Your task to perform on an android device: open app "Pinterest" (install if not already installed) Image 0: 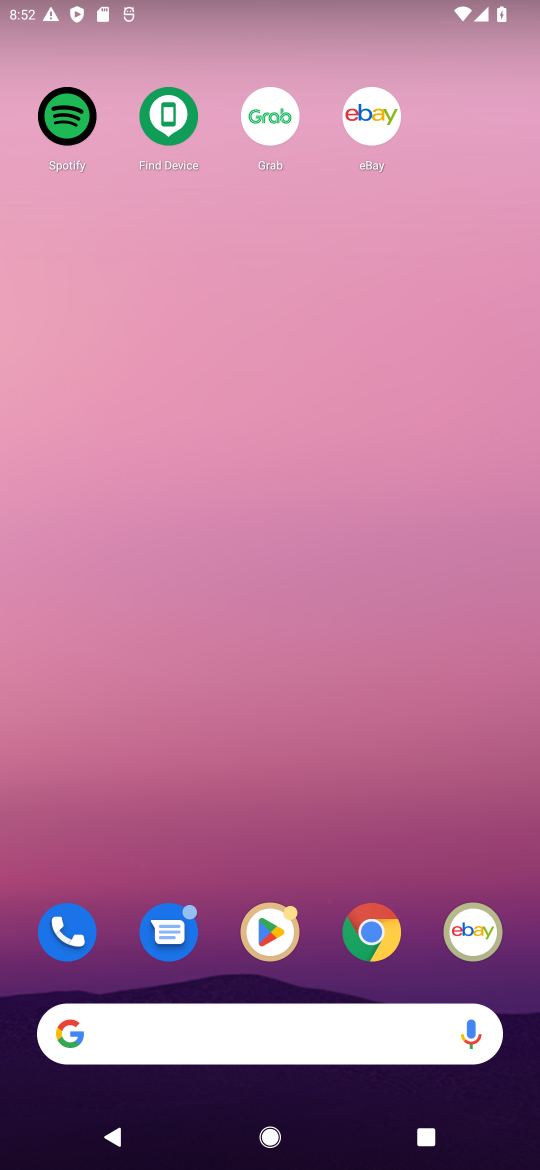
Step 0: click (262, 937)
Your task to perform on an android device: open app "Pinterest" (install if not already installed) Image 1: 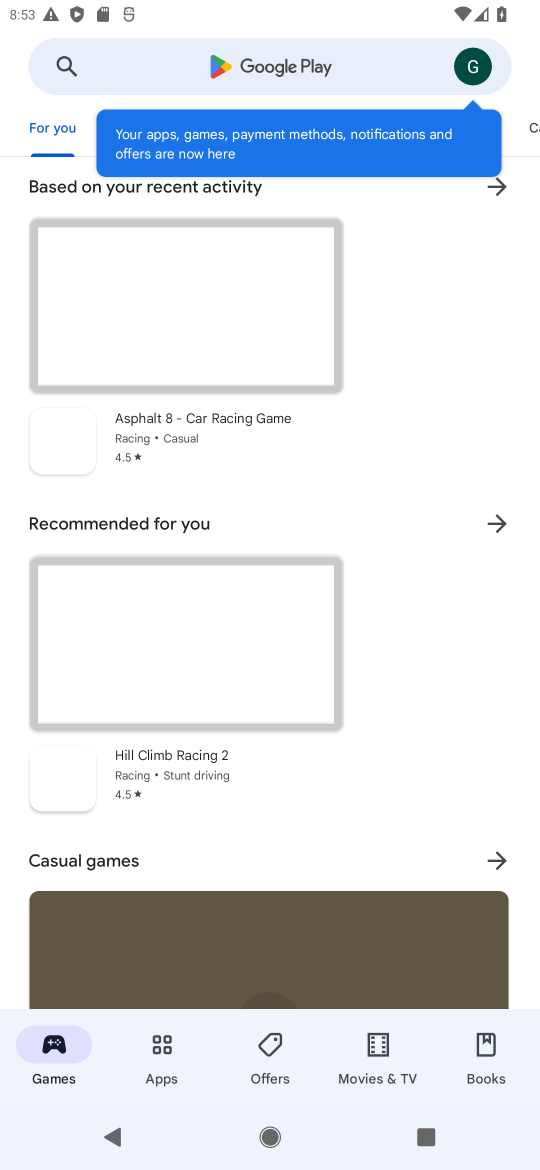
Step 1: click (308, 87)
Your task to perform on an android device: open app "Pinterest" (install if not already installed) Image 2: 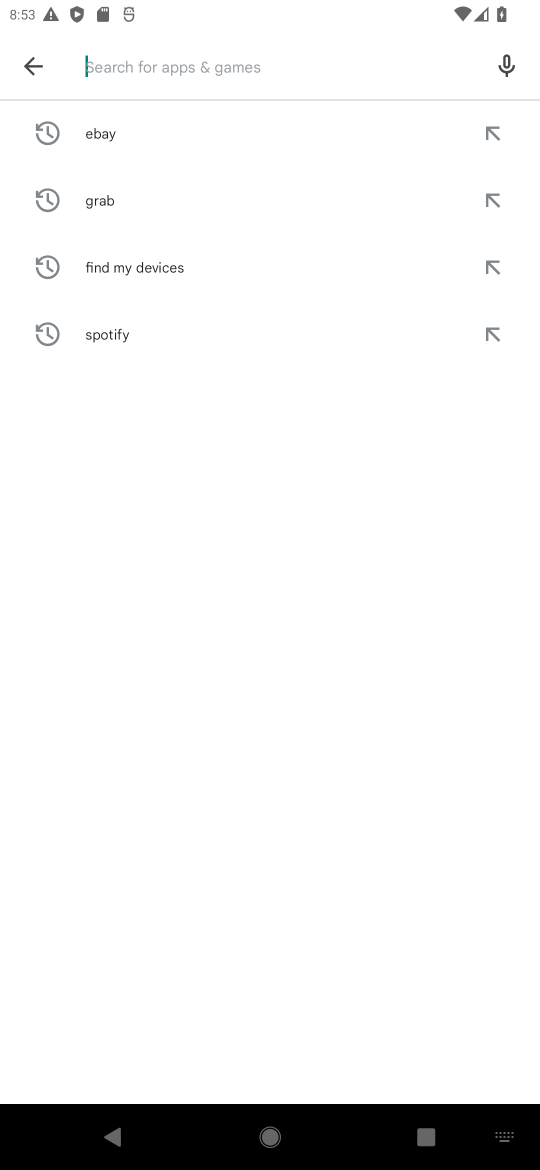
Step 2: type "pinterrest"
Your task to perform on an android device: open app "Pinterest" (install if not already installed) Image 3: 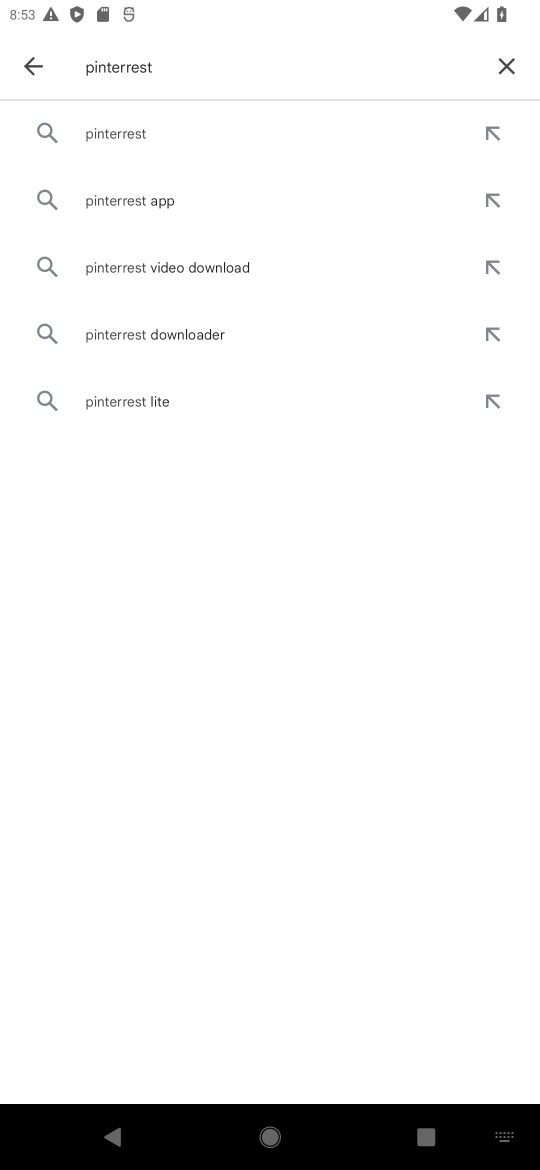
Step 3: click (280, 120)
Your task to perform on an android device: open app "Pinterest" (install if not already installed) Image 4: 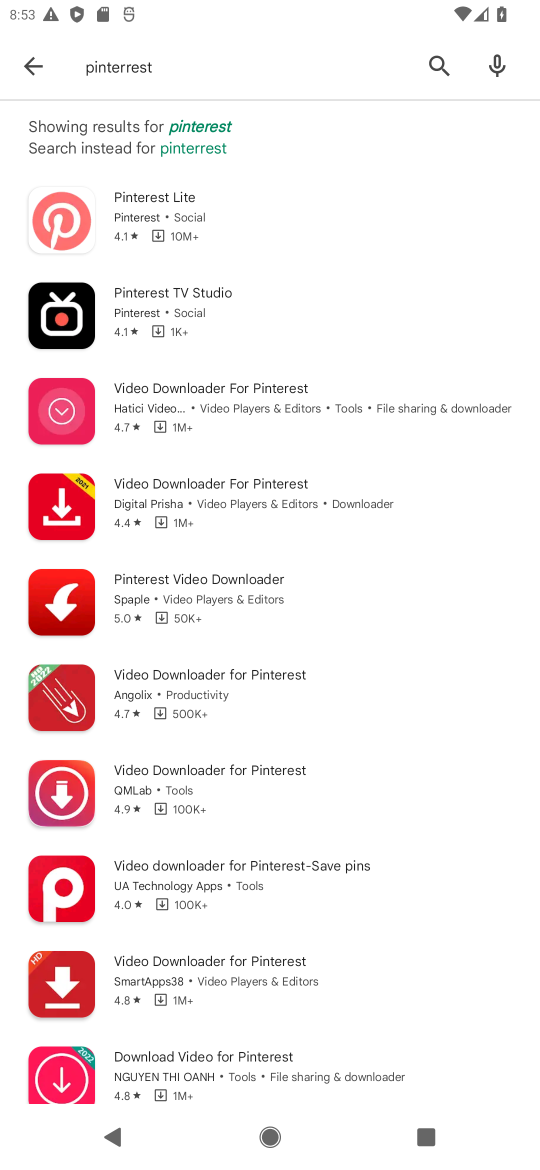
Step 4: click (249, 196)
Your task to perform on an android device: open app "Pinterest" (install if not already installed) Image 5: 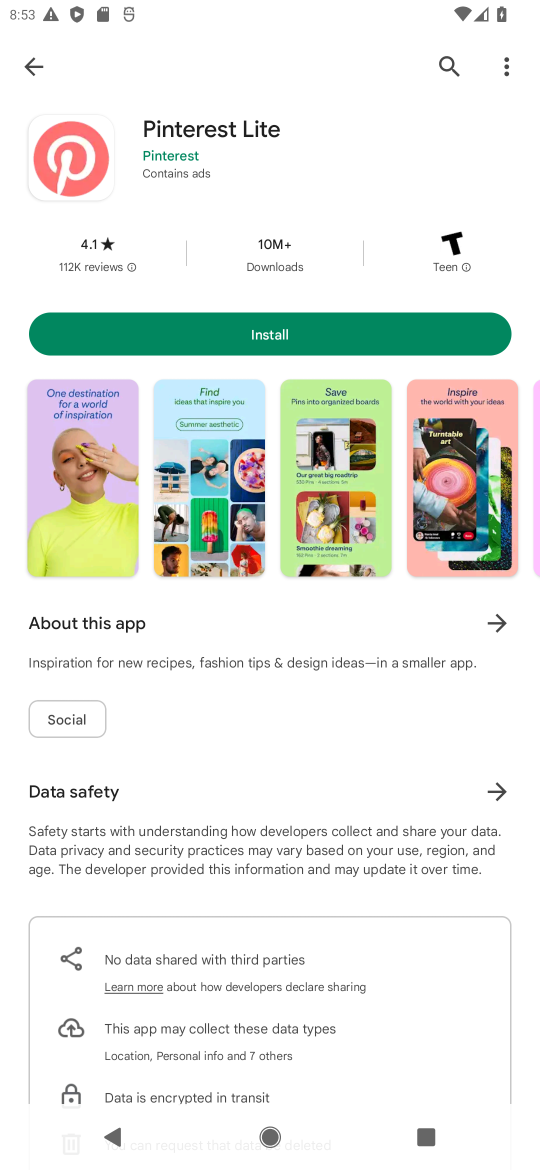
Step 5: click (338, 326)
Your task to perform on an android device: open app "Pinterest" (install if not already installed) Image 6: 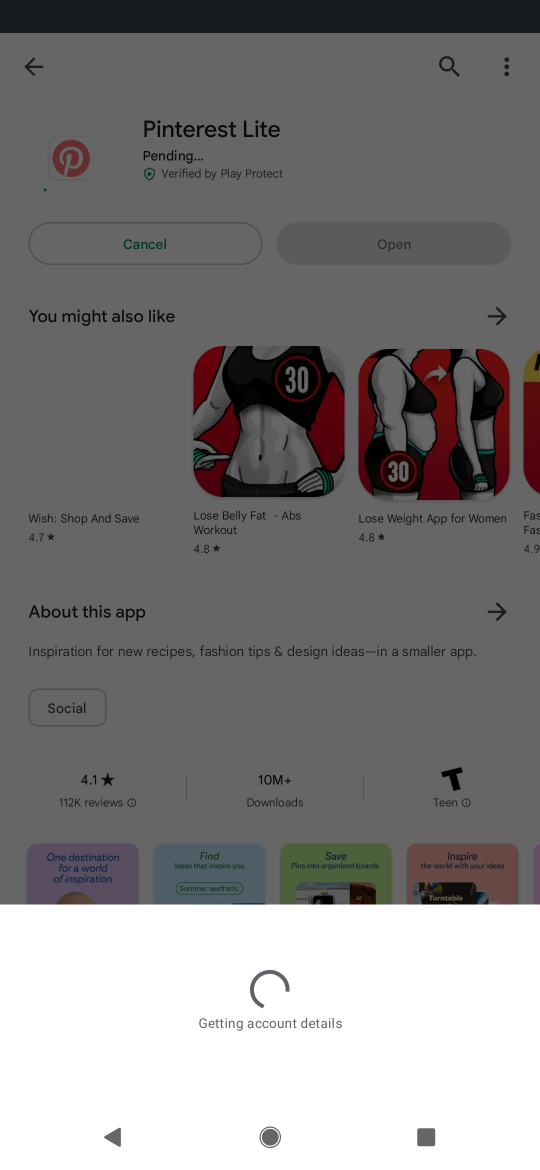
Step 6: task complete